Your task to perform on an android device: empty trash in google photos Image 0: 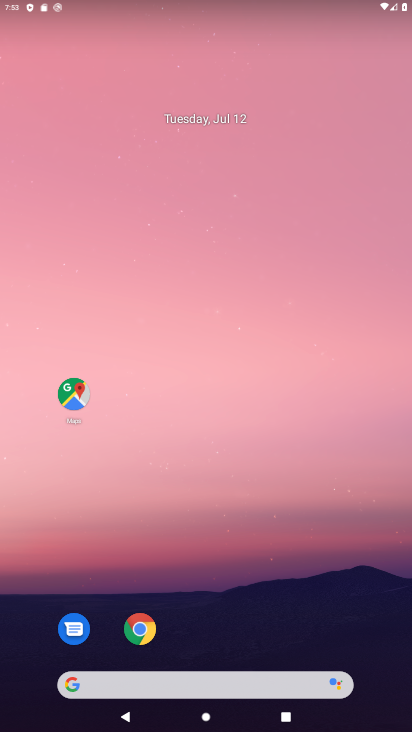
Step 0: drag from (273, 611) to (273, 234)
Your task to perform on an android device: empty trash in google photos Image 1: 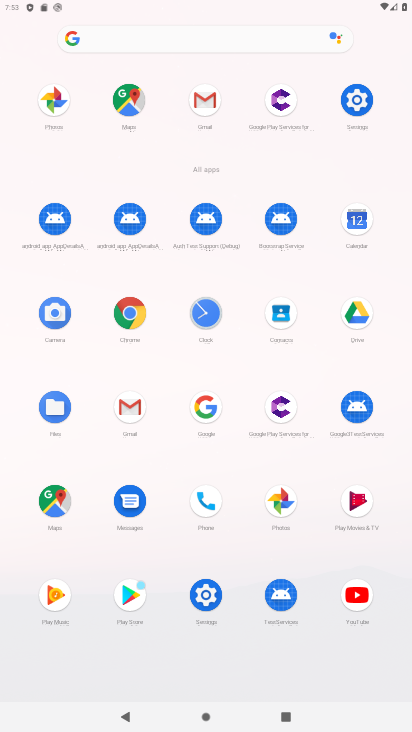
Step 1: click (200, 101)
Your task to perform on an android device: empty trash in google photos Image 2: 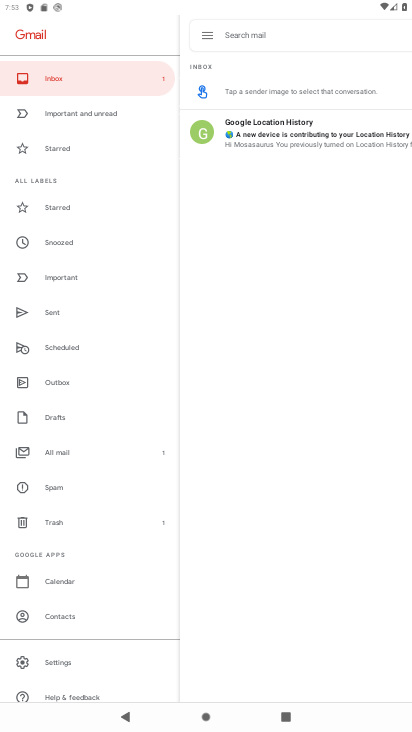
Step 2: drag from (78, 490) to (178, 300)
Your task to perform on an android device: empty trash in google photos Image 3: 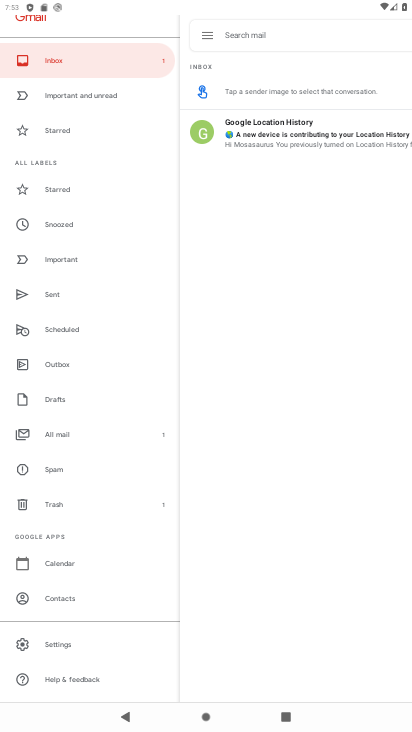
Step 3: click (70, 503)
Your task to perform on an android device: empty trash in google photos Image 4: 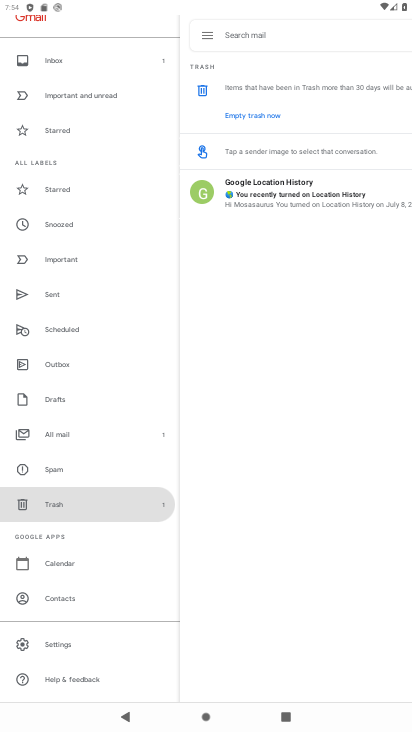
Step 4: click (322, 193)
Your task to perform on an android device: empty trash in google photos Image 5: 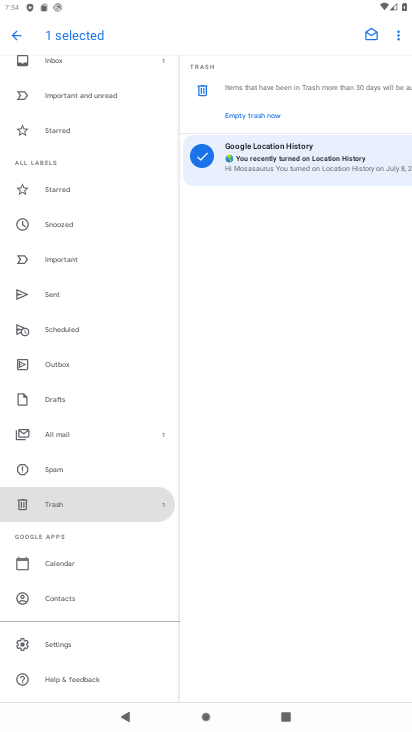
Step 5: click (200, 85)
Your task to perform on an android device: empty trash in google photos Image 6: 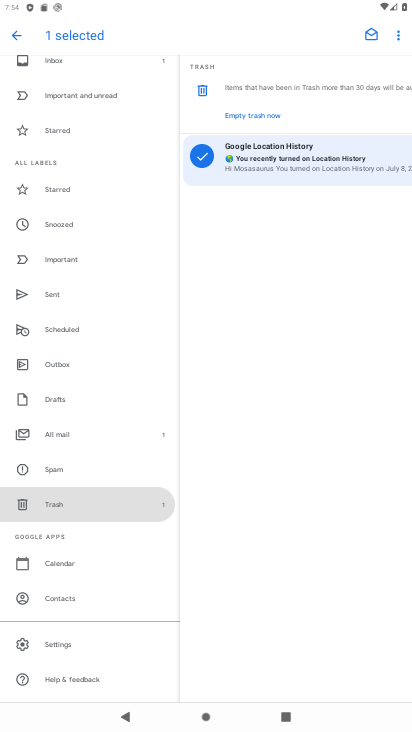
Step 6: click (196, 82)
Your task to perform on an android device: empty trash in google photos Image 7: 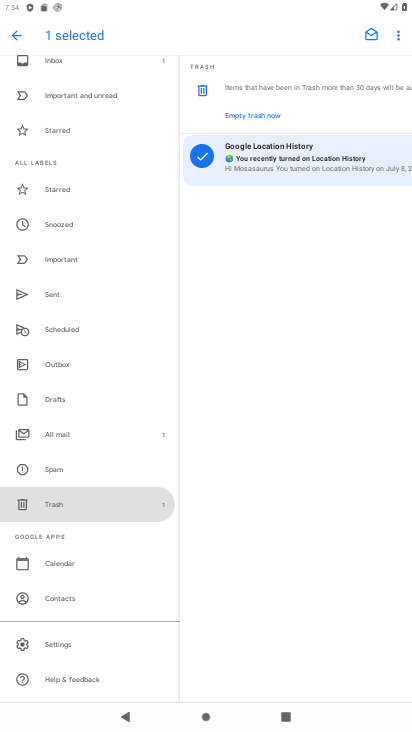
Step 7: click (196, 82)
Your task to perform on an android device: empty trash in google photos Image 8: 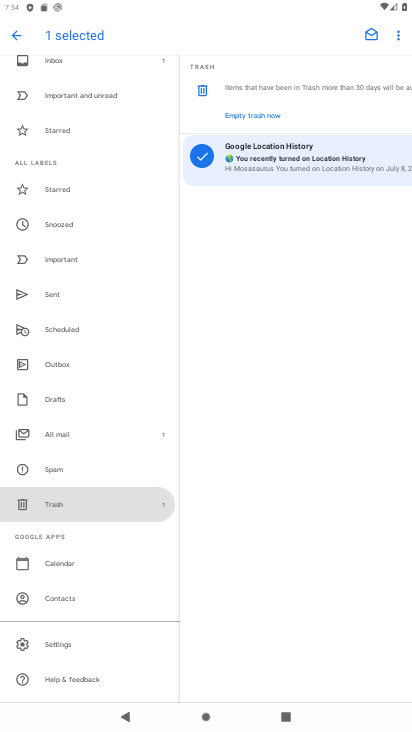
Step 8: click (200, 88)
Your task to perform on an android device: empty trash in google photos Image 9: 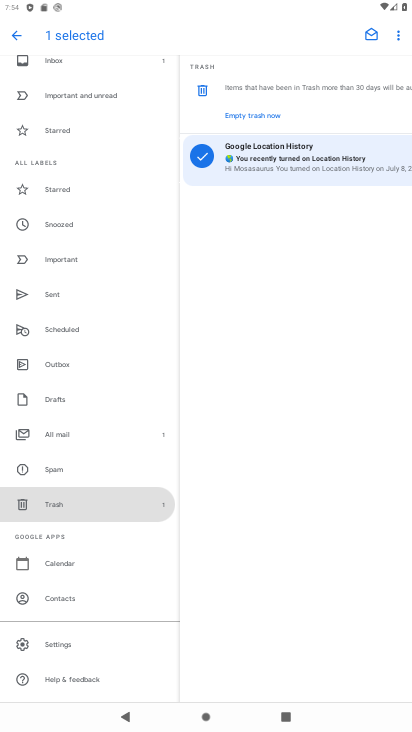
Step 9: click (239, 169)
Your task to perform on an android device: empty trash in google photos Image 10: 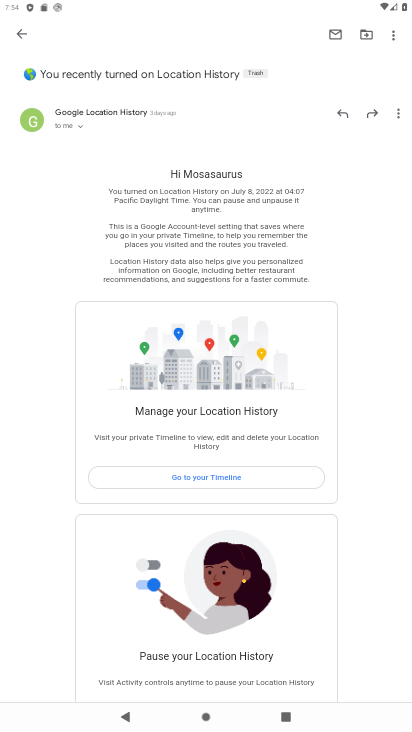
Step 10: click (19, 24)
Your task to perform on an android device: empty trash in google photos Image 11: 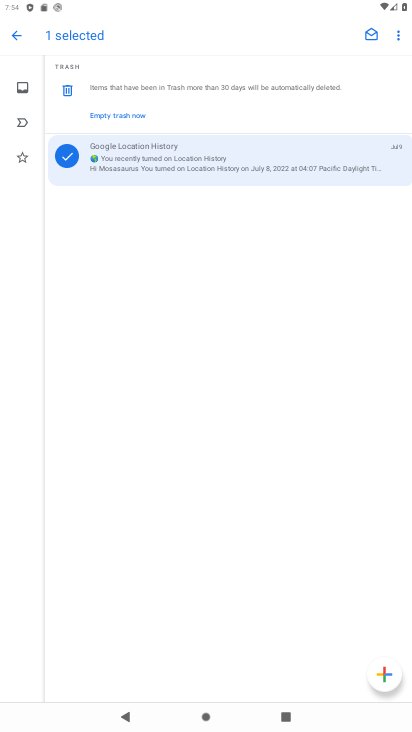
Step 11: click (69, 91)
Your task to perform on an android device: empty trash in google photos Image 12: 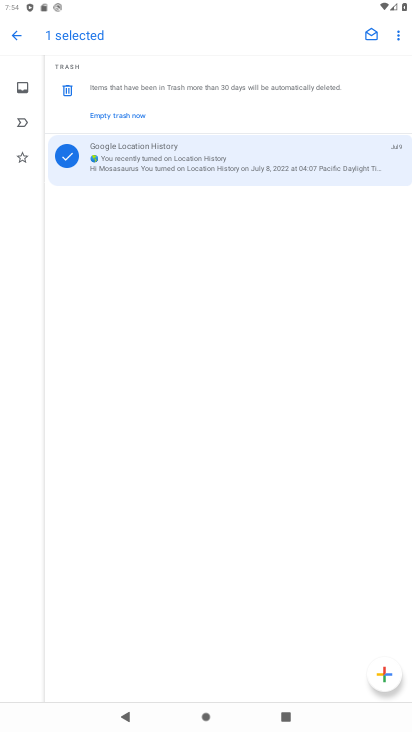
Step 12: click (67, 95)
Your task to perform on an android device: empty trash in google photos Image 13: 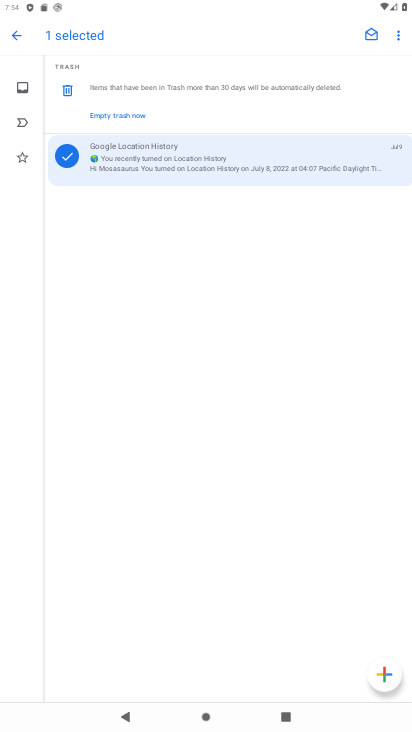
Step 13: click (67, 93)
Your task to perform on an android device: empty trash in google photos Image 14: 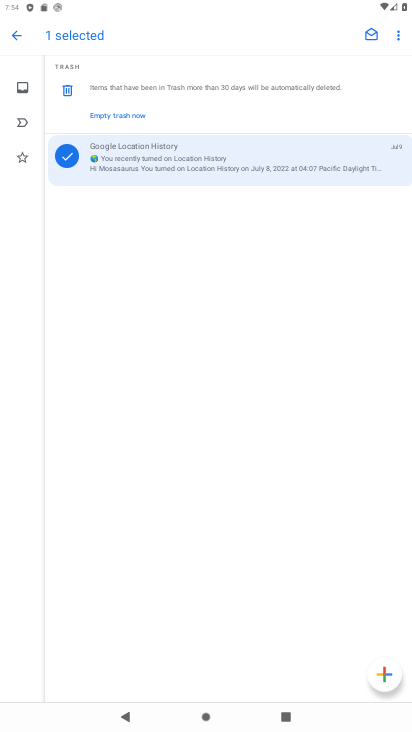
Step 14: click (67, 93)
Your task to perform on an android device: empty trash in google photos Image 15: 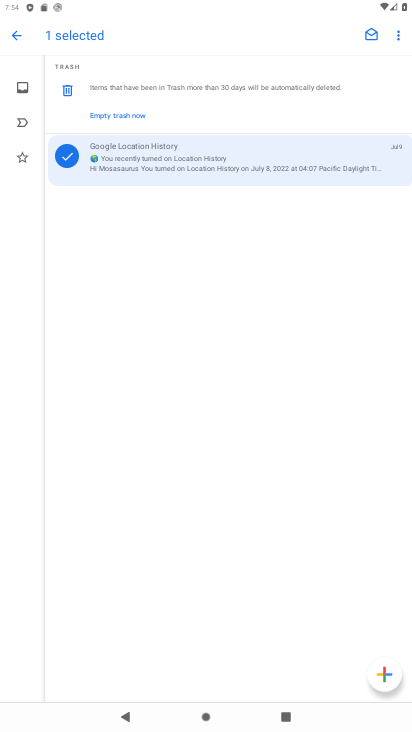
Step 15: click (381, 148)
Your task to perform on an android device: empty trash in google photos Image 16: 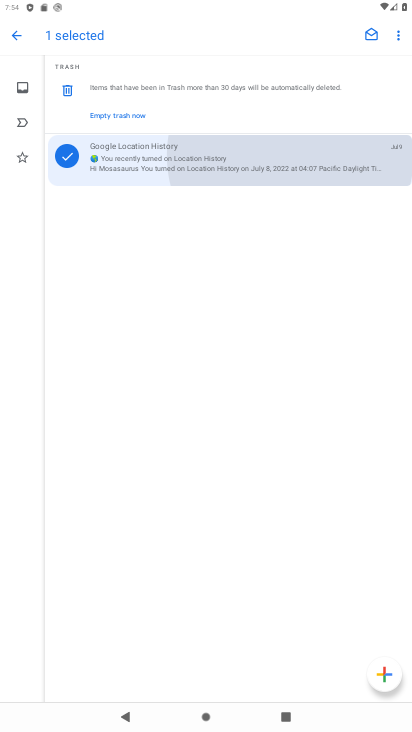
Step 16: click (377, 154)
Your task to perform on an android device: empty trash in google photos Image 17: 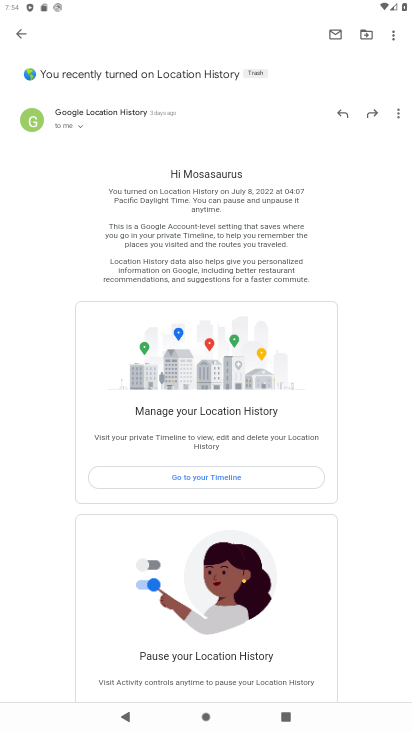
Step 17: click (399, 30)
Your task to perform on an android device: empty trash in google photos Image 18: 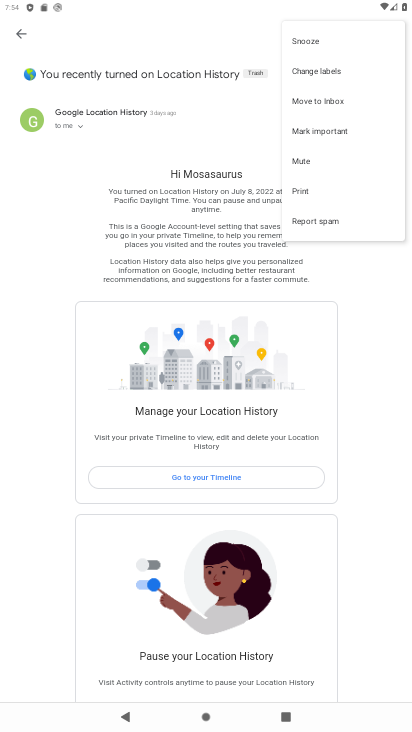
Step 18: click (350, 272)
Your task to perform on an android device: empty trash in google photos Image 19: 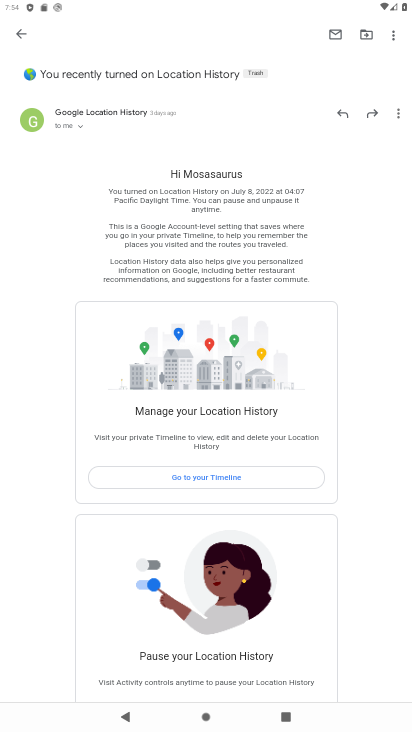
Step 19: click (18, 28)
Your task to perform on an android device: empty trash in google photos Image 20: 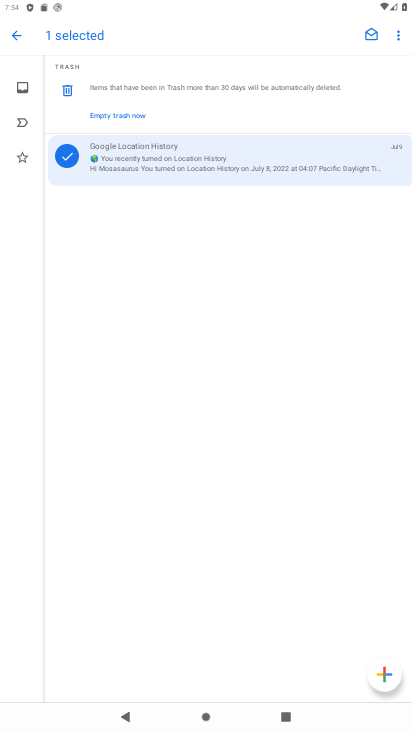
Step 20: click (18, 28)
Your task to perform on an android device: empty trash in google photos Image 21: 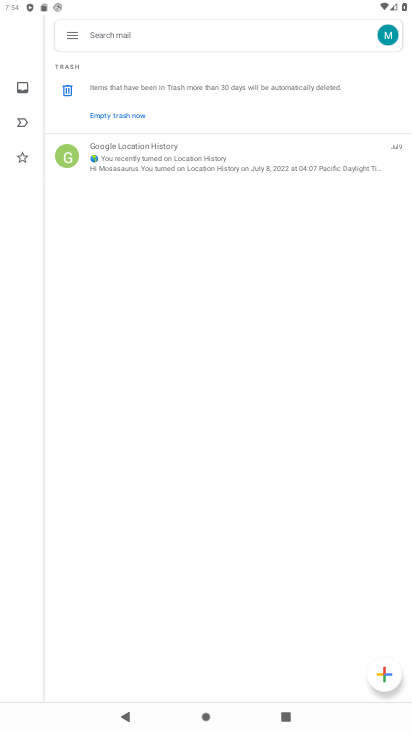
Step 21: click (134, 171)
Your task to perform on an android device: empty trash in google photos Image 22: 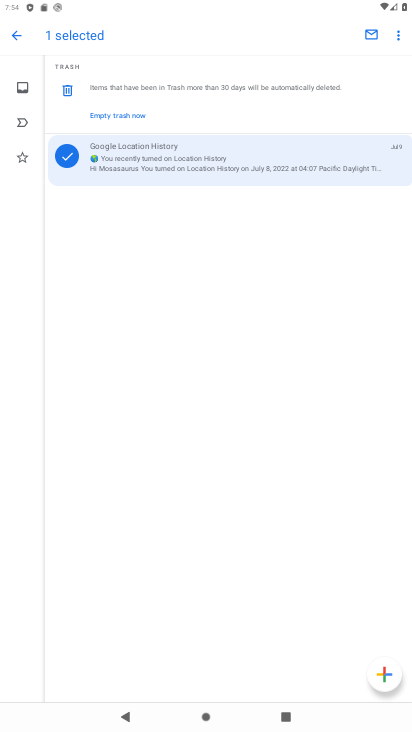
Step 22: click (400, 37)
Your task to perform on an android device: empty trash in google photos Image 23: 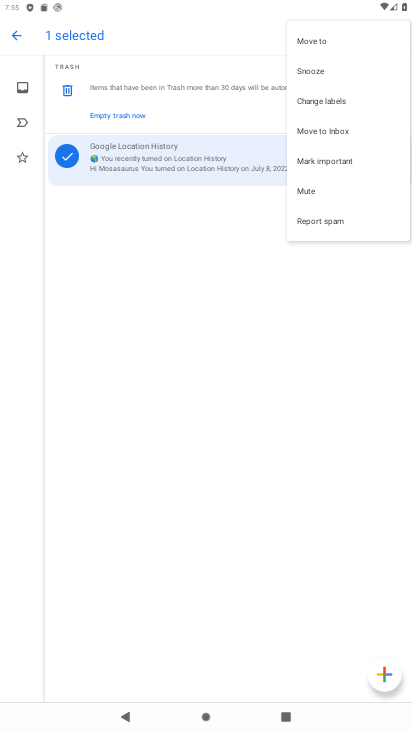
Step 23: task complete